Your task to perform on an android device: Go to Yahoo.com Image 0: 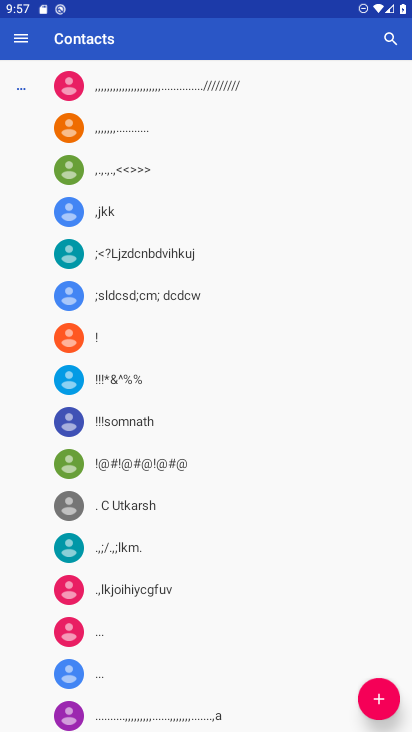
Step 0: press home button
Your task to perform on an android device: Go to Yahoo.com Image 1: 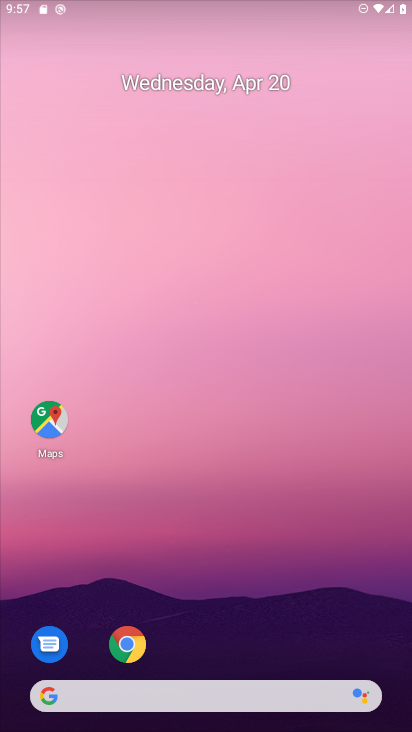
Step 1: drag from (307, 593) to (221, 51)
Your task to perform on an android device: Go to Yahoo.com Image 2: 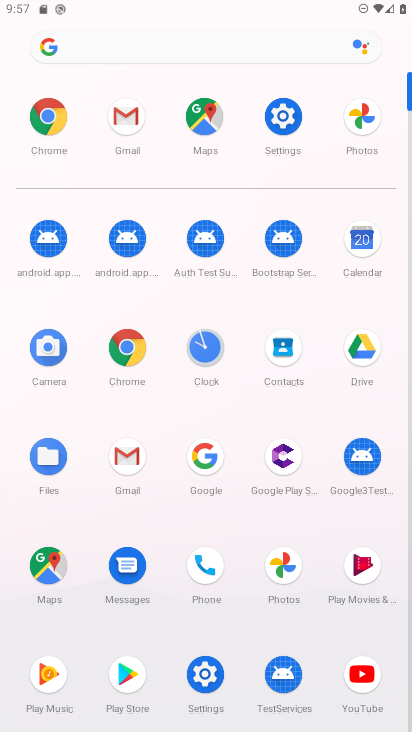
Step 2: click (115, 340)
Your task to perform on an android device: Go to Yahoo.com Image 3: 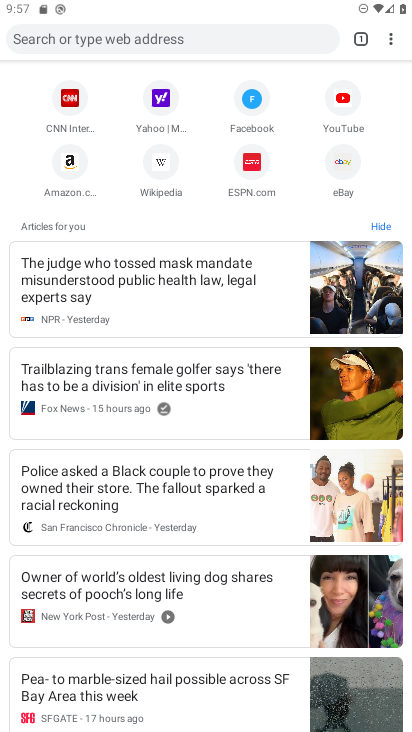
Step 3: click (139, 105)
Your task to perform on an android device: Go to Yahoo.com Image 4: 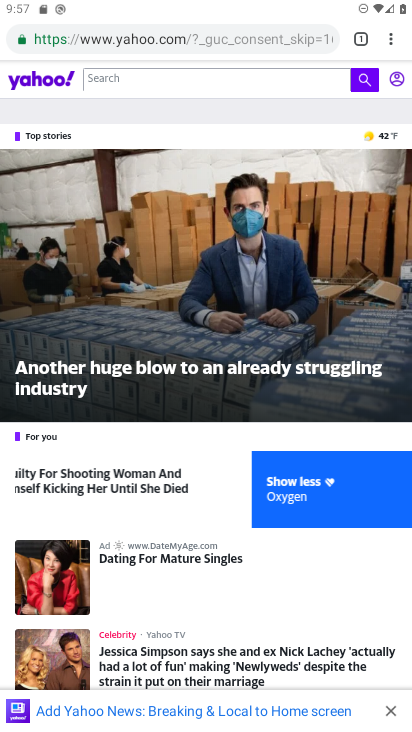
Step 4: task complete